Your task to perform on an android device: Show me the alarms in the clock app Image 0: 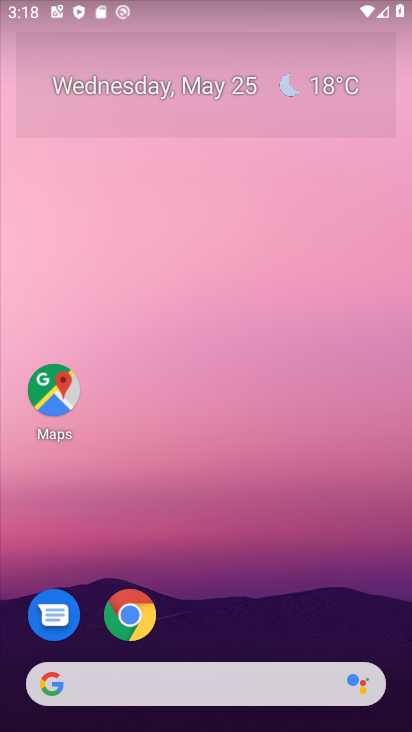
Step 0: drag from (330, 664) to (232, 45)
Your task to perform on an android device: Show me the alarms in the clock app Image 1: 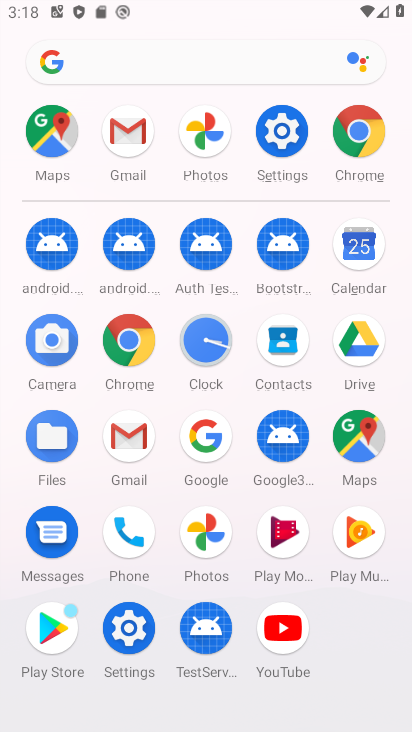
Step 1: click (199, 332)
Your task to perform on an android device: Show me the alarms in the clock app Image 2: 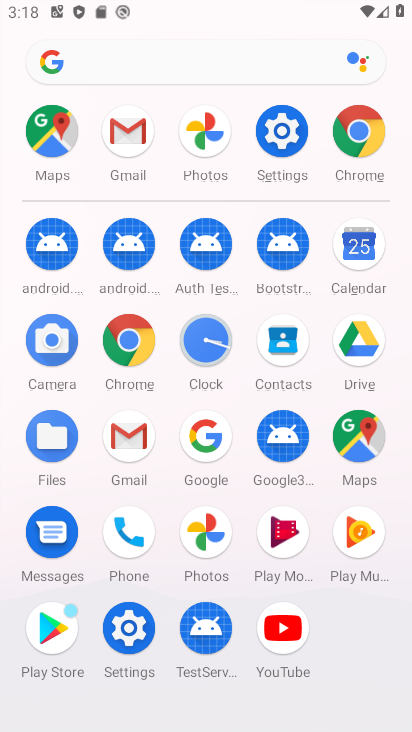
Step 2: click (199, 332)
Your task to perform on an android device: Show me the alarms in the clock app Image 3: 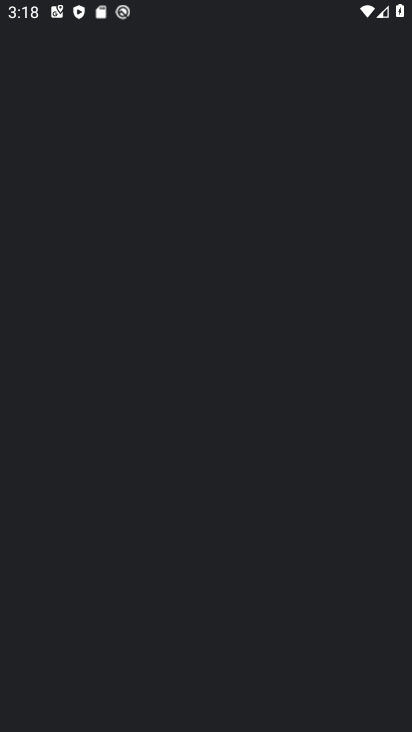
Step 3: click (199, 332)
Your task to perform on an android device: Show me the alarms in the clock app Image 4: 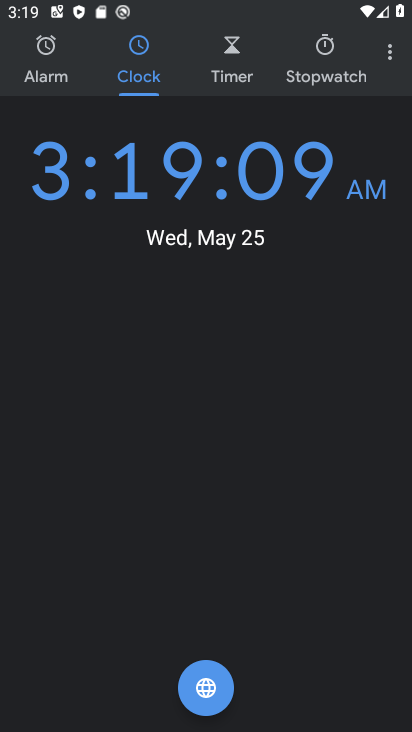
Step 4: click (37, 68)
Your task to perform on an android device: Show me the alarms in the clock app Image 5: 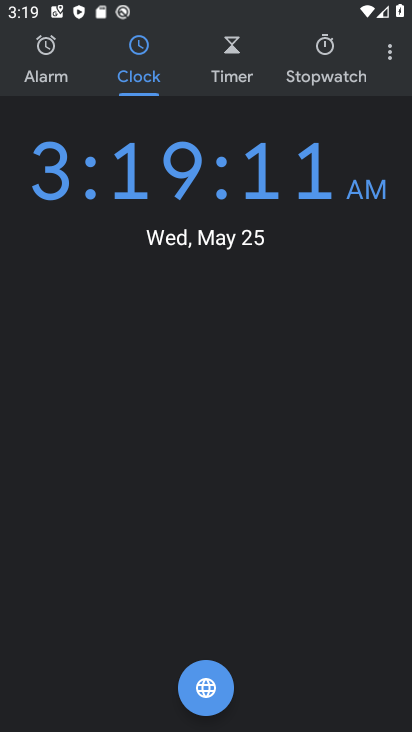
Step 5: click (38, 68)
Your task to perform on an android device: Show me the alarms in the clock app Image 6: 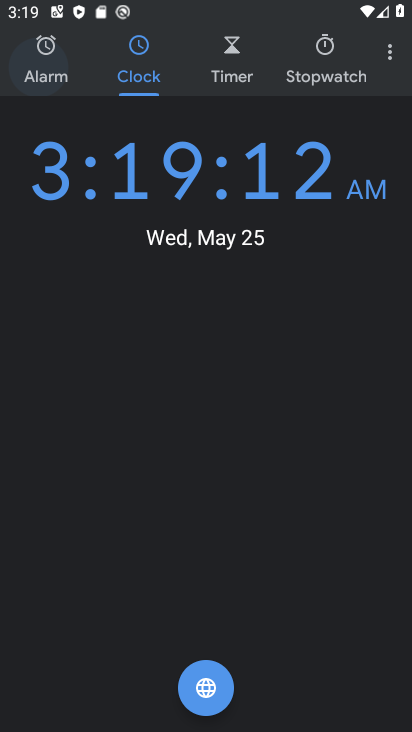
Step 6: click (39, 67)
Your task to perform on an android device: Show me the alarms in the clock app Image 7: 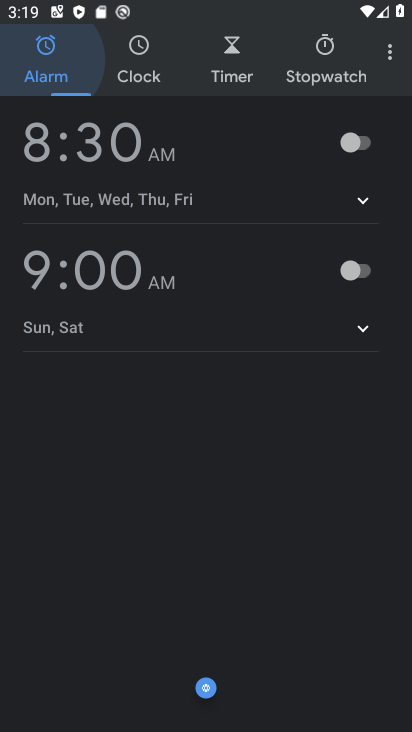
Step 7: click (39, 66)
Your task to perform on an android device: Show me the alarms in the clock app Image 8: 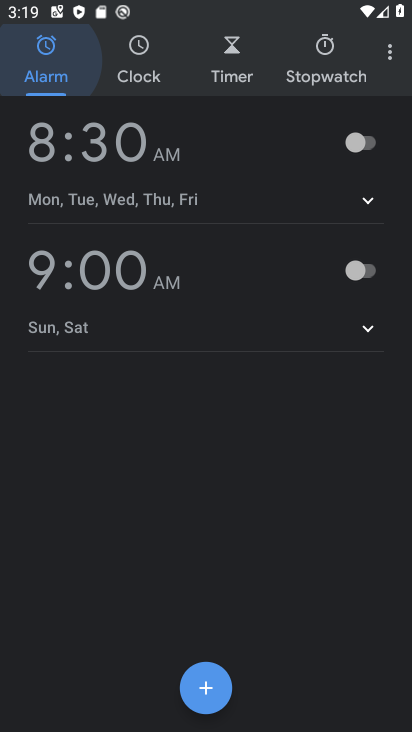
Step 8: click (39, 66)
Your task to perform on an android device: Show me the alarms in the clock app Image 9: 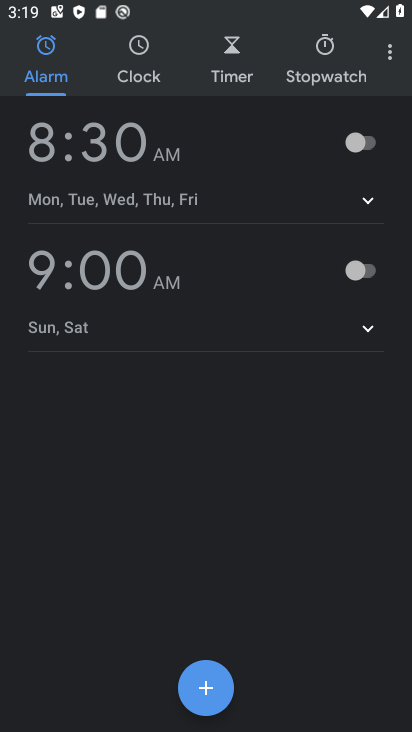
Step 9: click (38, 64)
Your task to perform on an android device: Show me the alarms in the clock app Image 10: 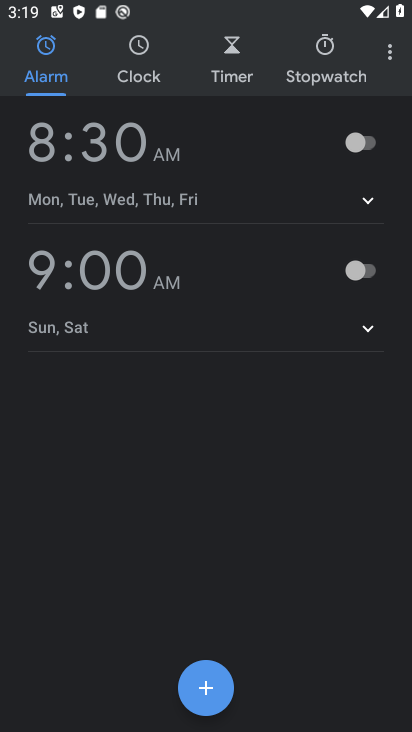
Step 10: task complete